Your task to perform on an android device: Go to network settings Image 0: 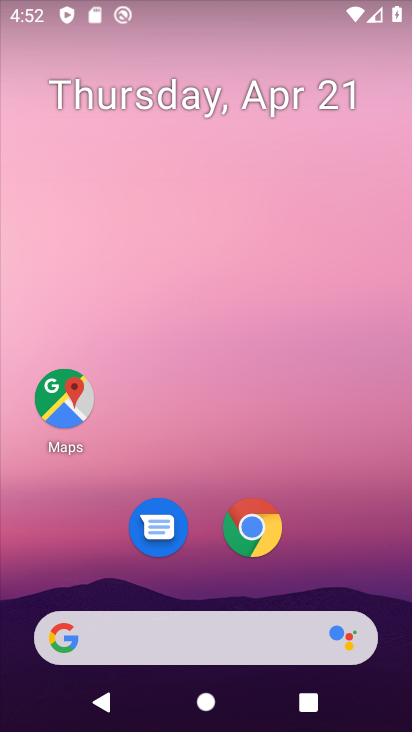
Step 0: drag from (368, 250) to (364, 155)
Your task to perform on an android device: Go to network settings Image 1: 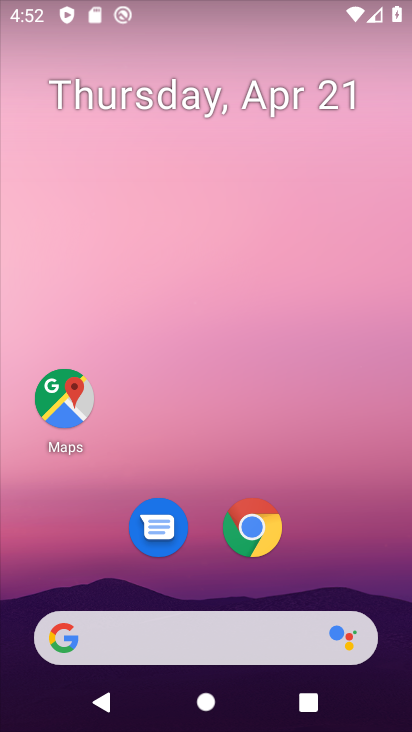
Step 1: click (384, 119)
Your task to perform on an android device: Go to network settings Image 2: 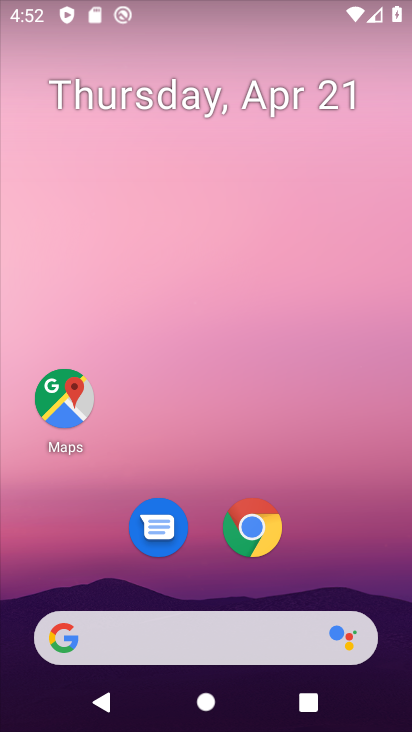
Step 2: click (375, 122)
Your task to perform on an android device: Go to network settings Image 3: 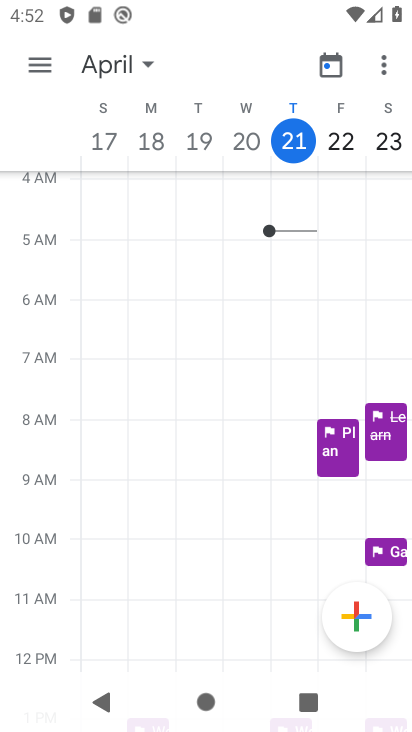
Step 3: drag from (385, 528) to (411, 64)
Your task to perform on an android device: Go to network settings Image 4: 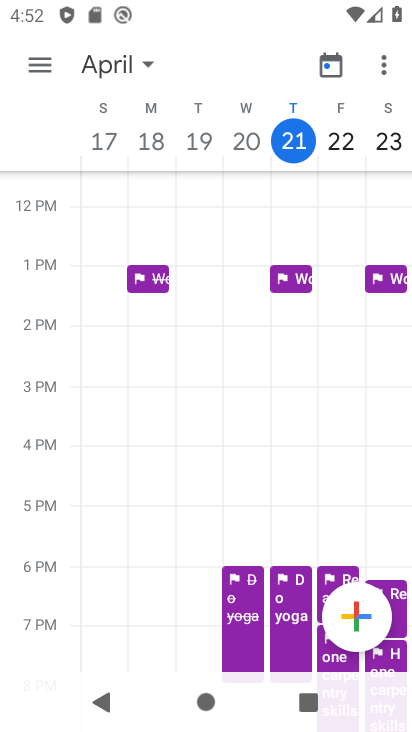
Step 4: press home button
Your task to perform on an android device: Go to network settings Image 5: 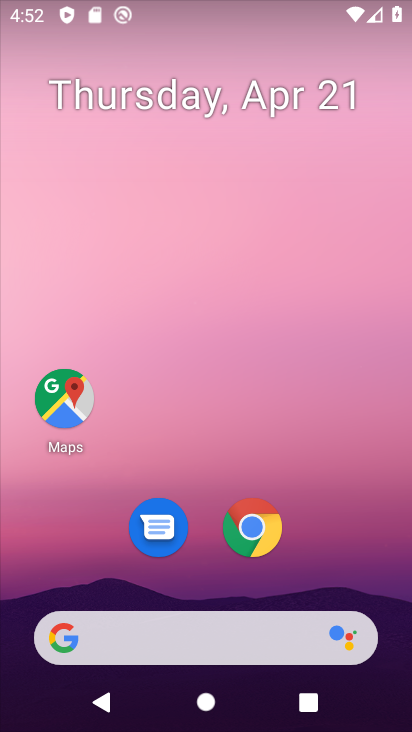
Step 5: click (372, 248)
Your task to perform on an android device: Go to network settings Image 6: 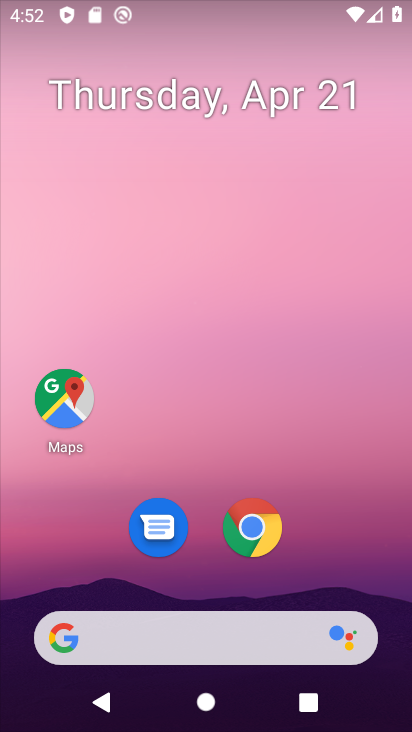
Step 6: drag from (391, 611) to (394, 171)
Your task to perform on an android device: Go to network settings Image 7: 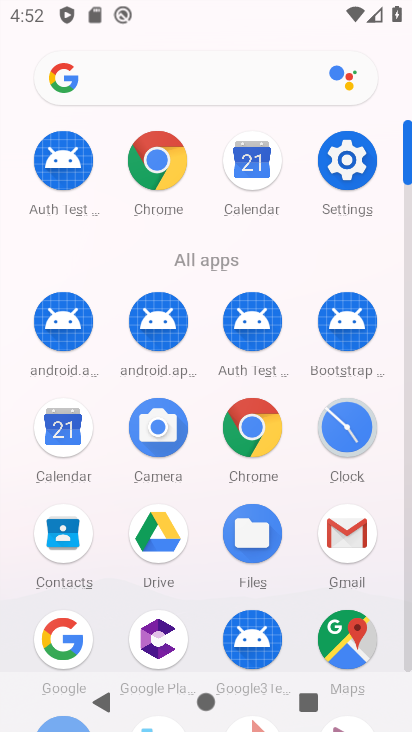
Step 7: click (347, 133)
Your task to perform on an android device: Go to network settings Image 8: 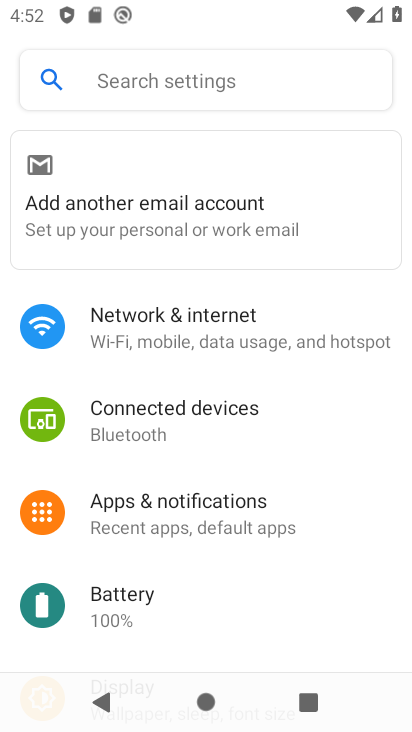
Step 8: click (138, 322)
Your task to perform on an android device: Go to network settings Image 9: 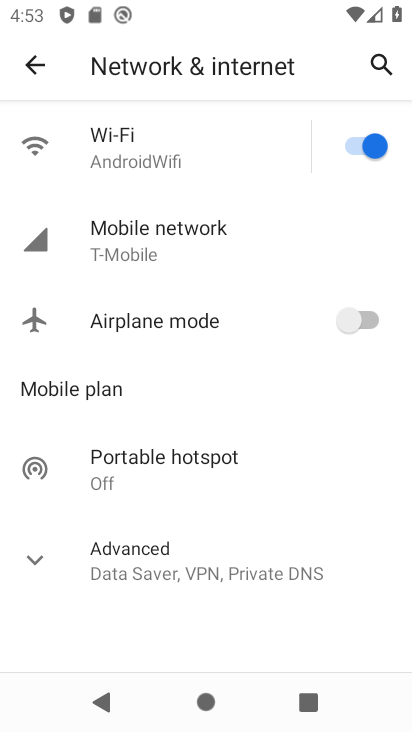
Step 9: task complete